Your task to perform on an android device: Go to ESPN.com Image 0: 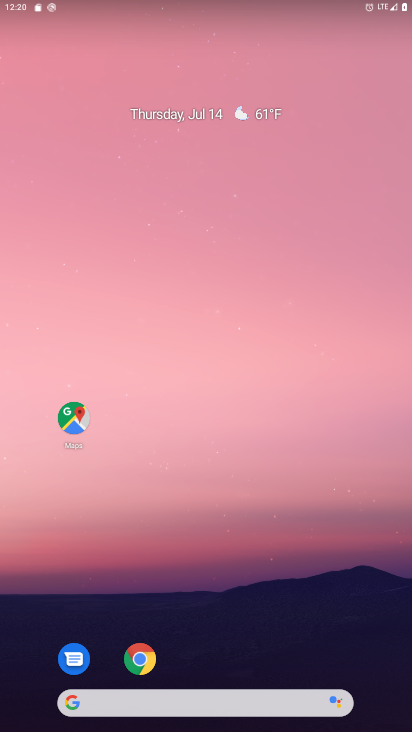
Step 0: click (135, 655)
Your task to perform on an android device: Go to ESPN.com Image 1: 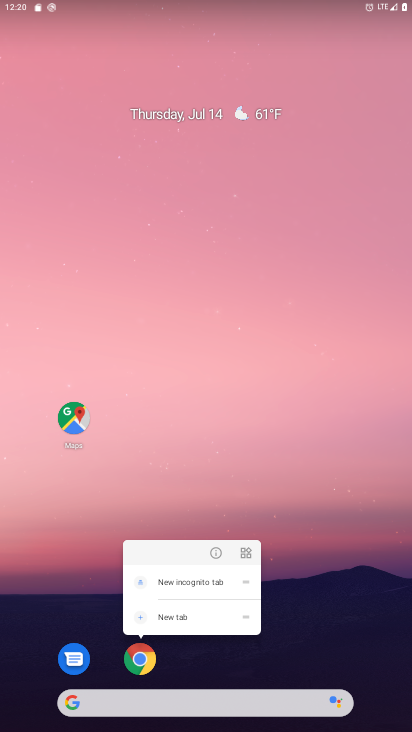
Step 1: click (137, 651)
Your task to perform on an android device: Go to ESPN.com Image 2: 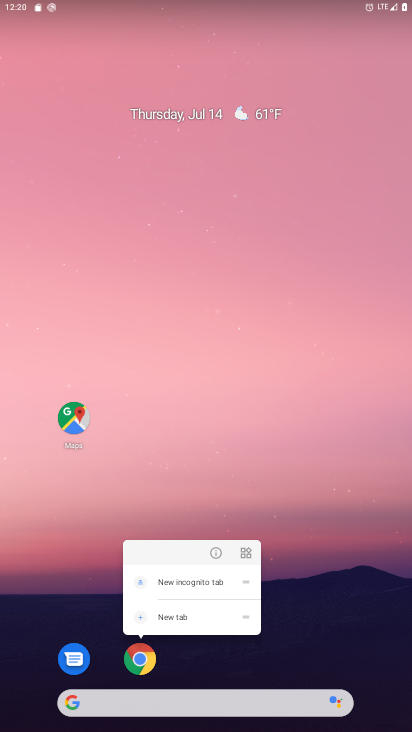
Step 2: click (137, 651)
Your task to perform on an android device: Go to ESPN.com Image 3: 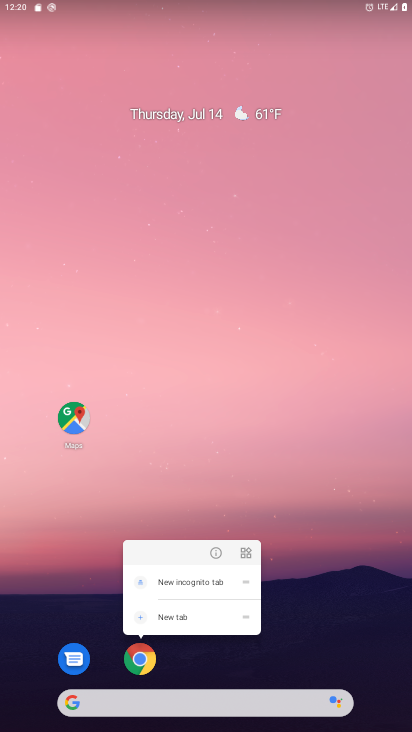
Step 3: click (137, 653)
Your task to perform on an android device: Go to ESPN.com Image 4: 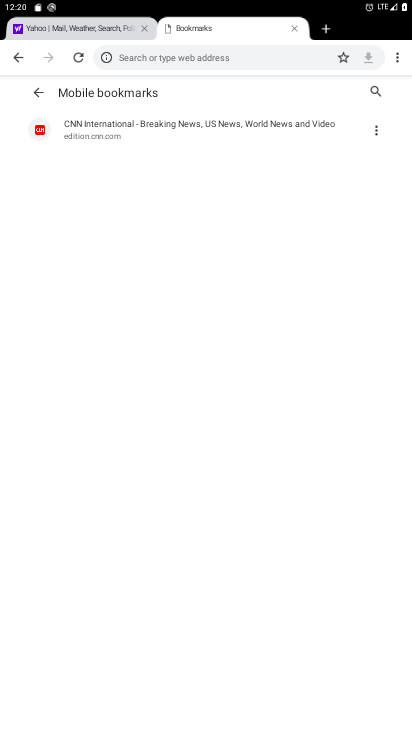
Step 4: click (320, 28)
Your task to perform on an android device: Go to ESPN.com Image 5: 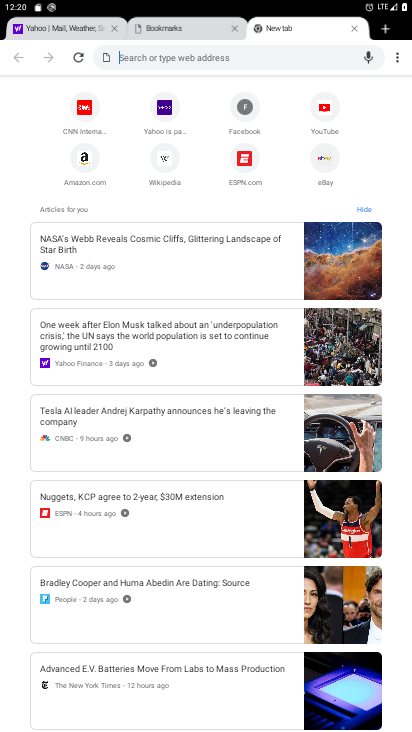
Step 5: click (244, 154)
Your task to perform on an android device: Go to ESPN.com Image 6: 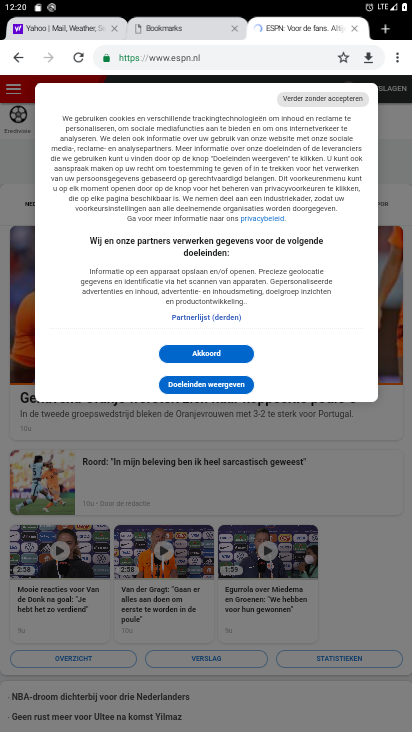
Step 6: click (205, 351)
Your task to perform on an android device: Go to ESPN.com Image 7: 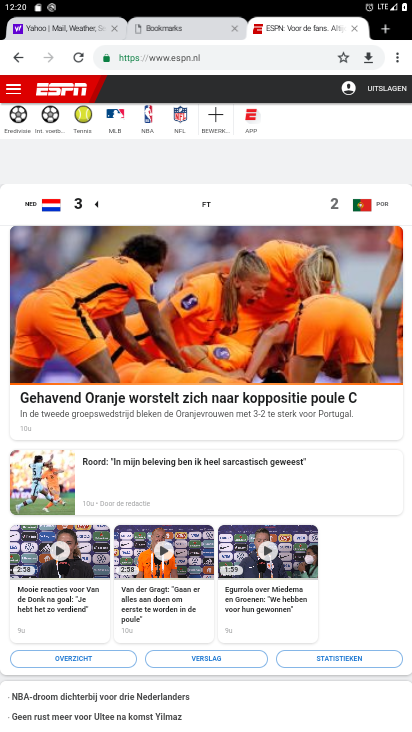
Step 7: task complete